Your task to perform on an android device: Open settings Image 0: 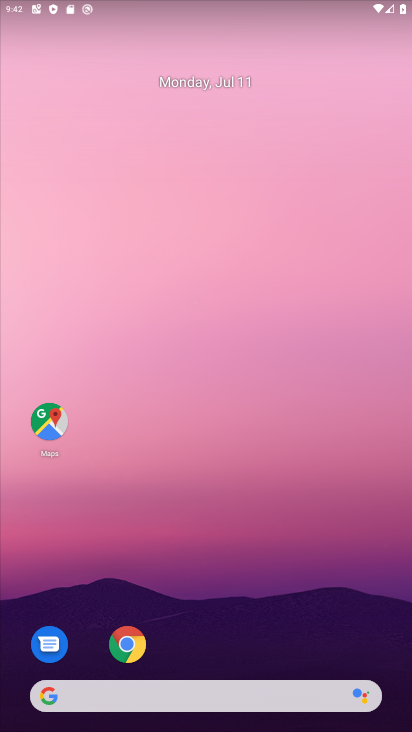
Step 0: drag from (217, 654) to (207, 109)
Your task to perform on an android device: Open settings Image 1: 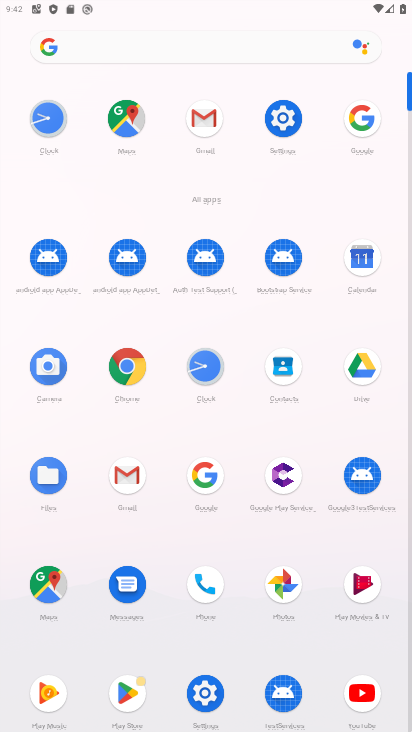
Step 1: click (284, 117)
Your task to perform on an android device: Open settings Image 2: 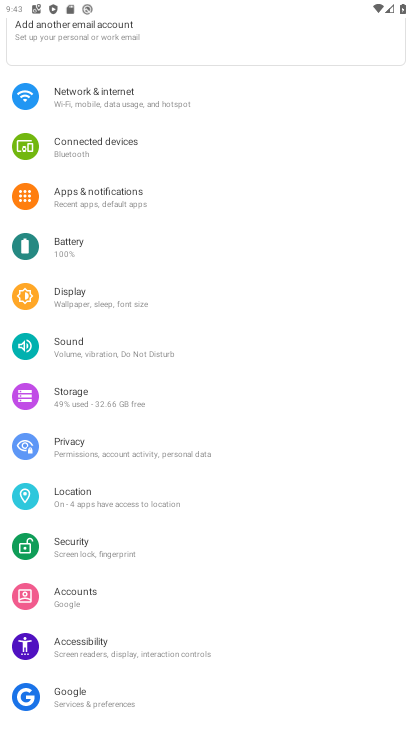
Step 2: task complete